Your task to perform on an android device: find which apps use the phone's location Image 0: 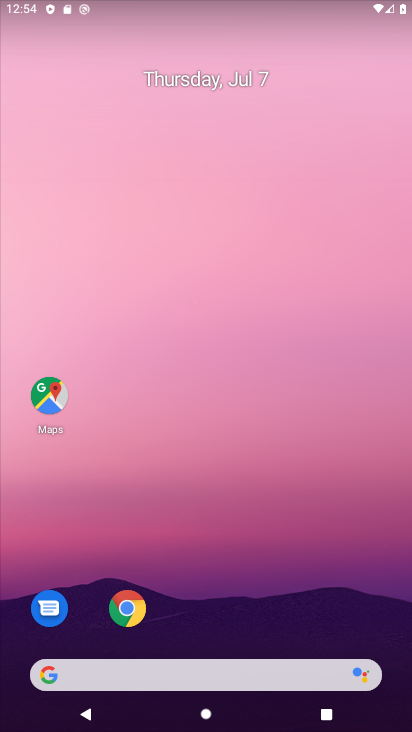
Step 0: drag from (176, 628) to (271, 10)
Your task to perform on an android device: find which apps use the phone's location Image 1: 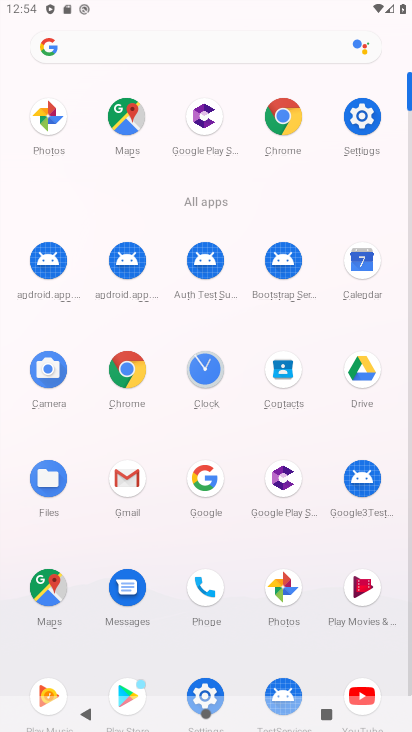
Step 1: click (359, 127)
Your task to perform on an android device: find which apps use the phone's location Image 2: 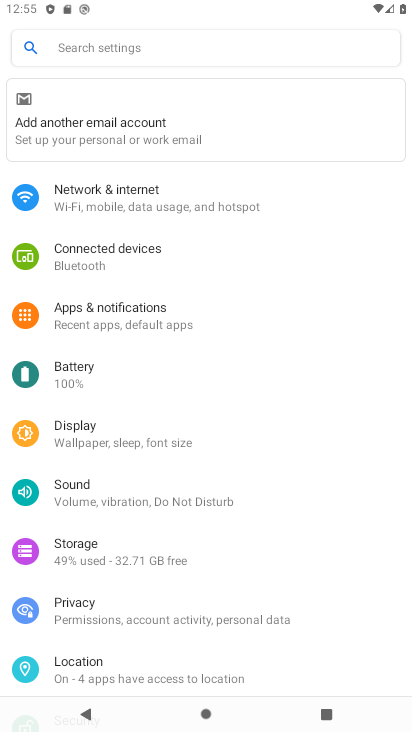
Step 2: click (108, 665)
Your task to perform on an android device: find which apps use the phone's location Image 3: 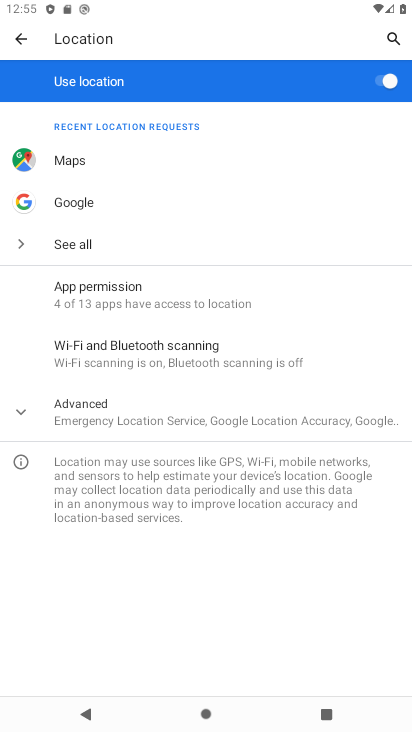
Step 3: click (119, 297)
Your task to perform on an android device: find which apps use the phone's location Image 4: 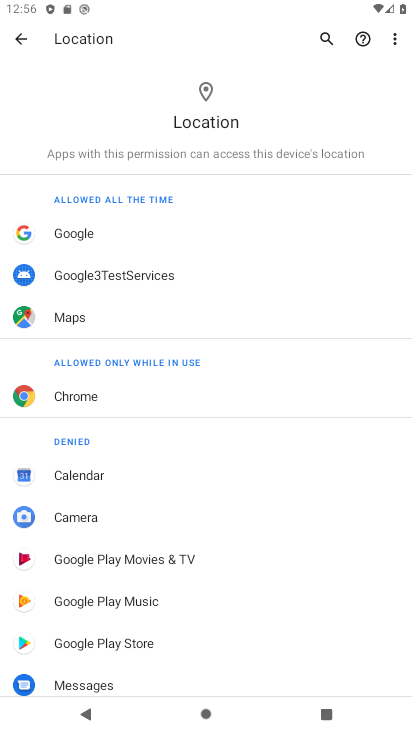
Step 4: task complete